Your task to perform on an android device: toggle notifications settings in the gmail app Image 0: 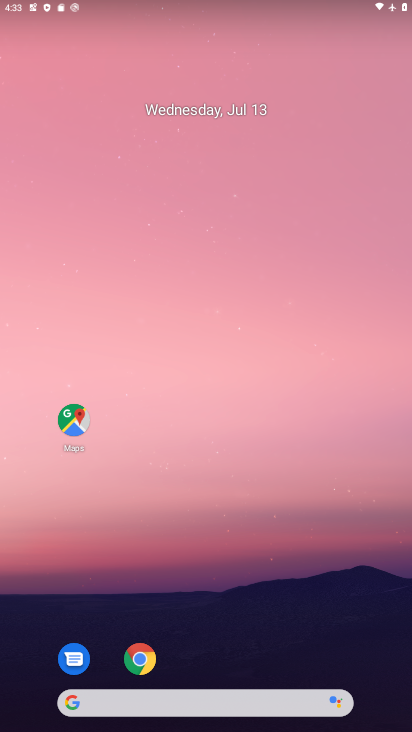
Step 0: press home button
Your task to perform on an android device: toggle notifications settings in the gmail app Image 1: 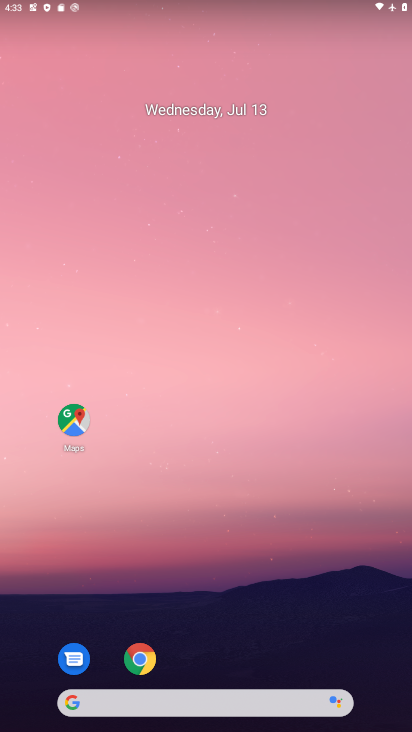
Step 1: drag from (228, 666) to (282, 1)
Your task to perform on an android device: toggle notifications settings in the gmail app Image 2: 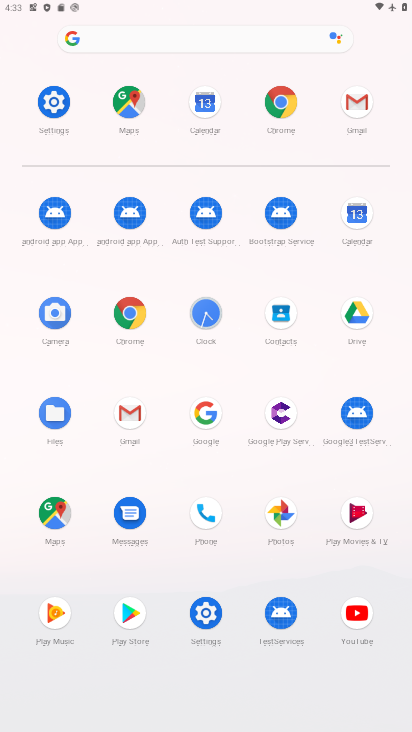
Step 2: click (131, 405)
Your task to perform on an android device: toggle notifications settings in the gmail app Image 3: 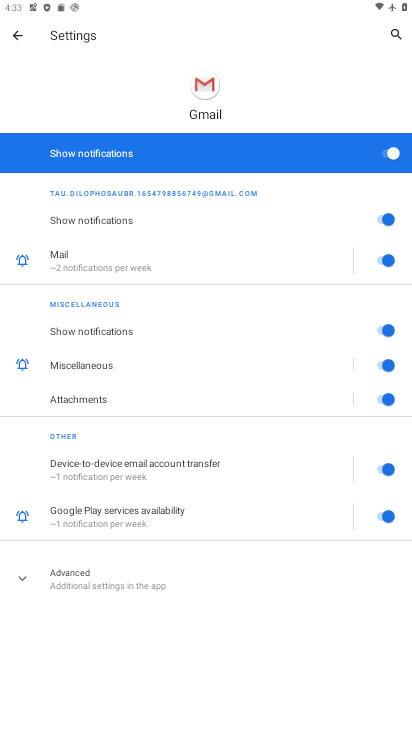
Step 3: click (388, 147)
Your task to perform on an android device: toggle notifications settings in the gmail app Image 4: 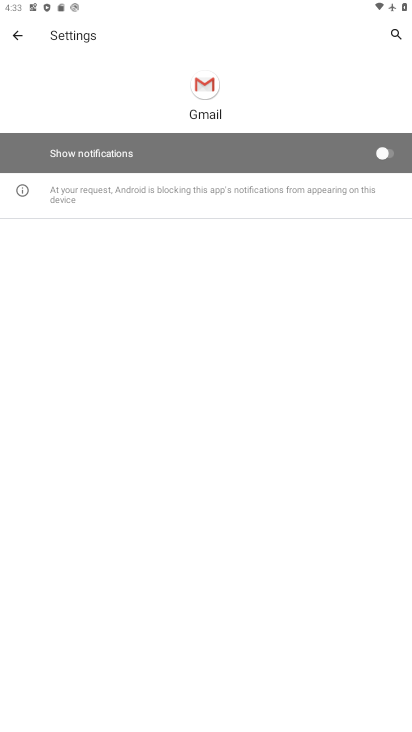
Step 4: task complete